Your task to perform on an android device: show emergency info Image 0: 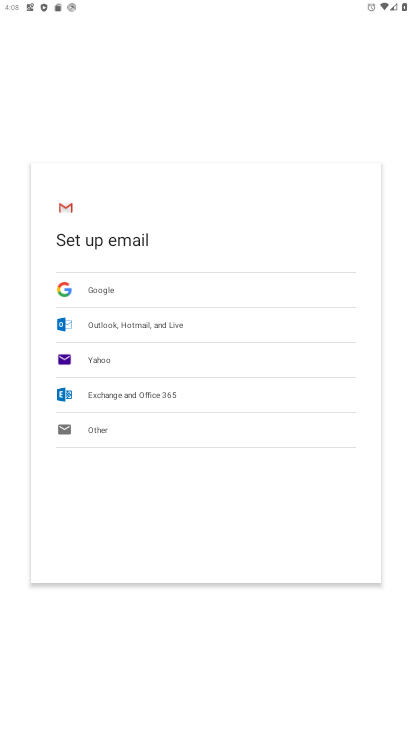
Step 0: press home button
Your task to perform on an android device: show emergency info Image 1: 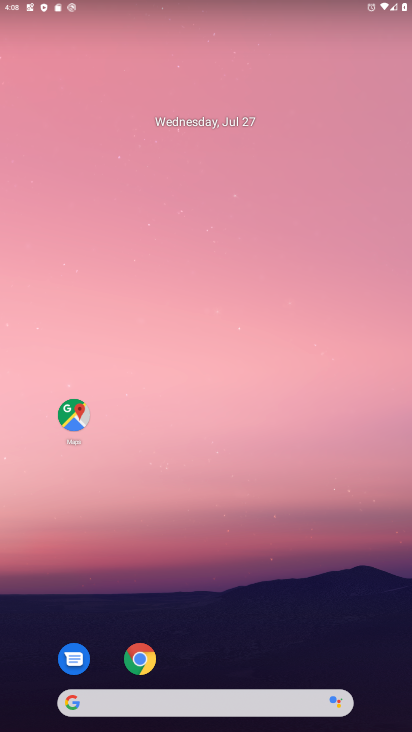
Step 1: drag from (203, 663) to (304, 55)
Your task to perform on an android device: show emergency info Image 2: 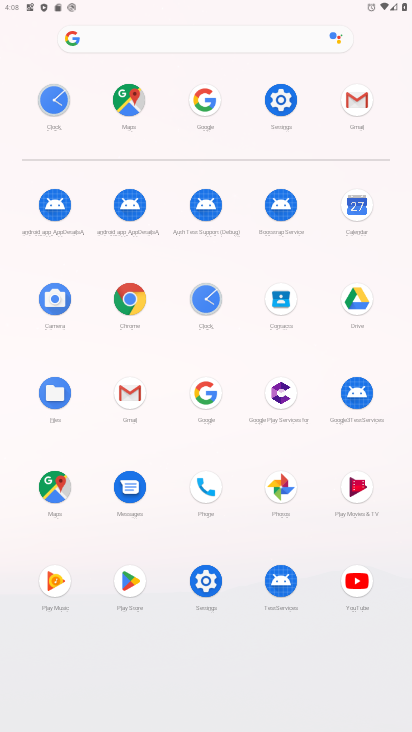
Step 2: click (206, 573)
Your task to perform on an android device: show emergency info Image 3: 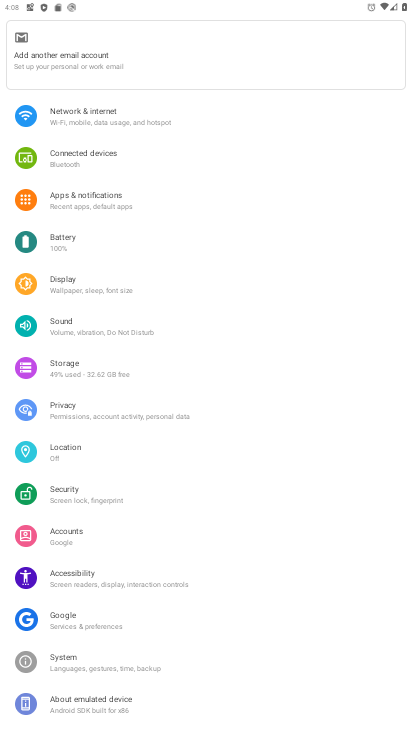
Step 3: click (113, 692)
Your task to perform on an android device: show emergency info Image 4: 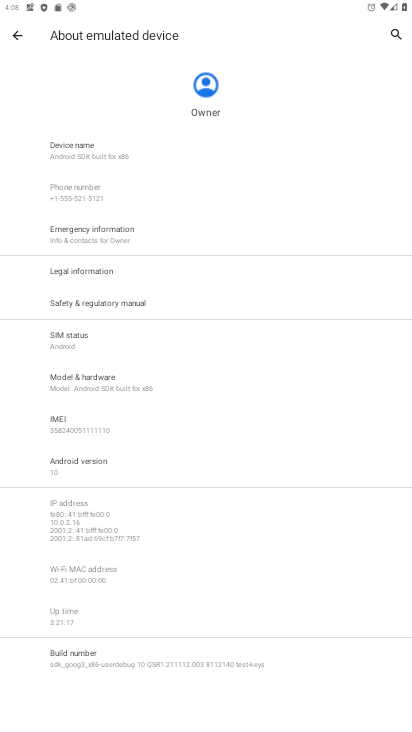
Step 4: click (105, 229)
Your task to perform on an android device: show emergency info Image 5: 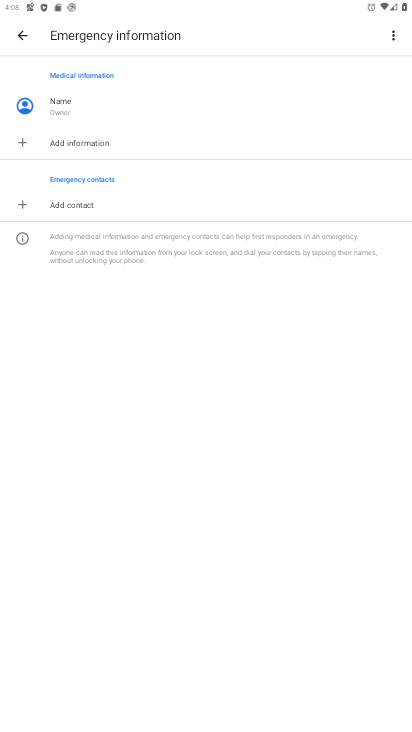
Step 5: task complete